Your task to perform on an android device: Show me popular videos on Youtube Image 0: 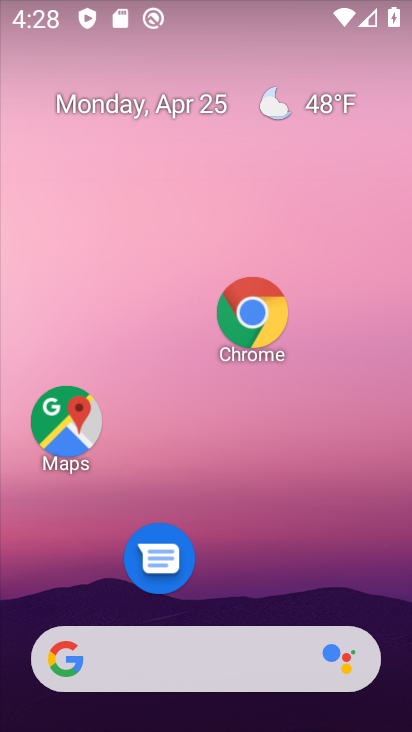
Step 0: drag from (285, 525) to (310, 78)
Your task to perform on an android device: Show me popular videos on Youtube Image 1: 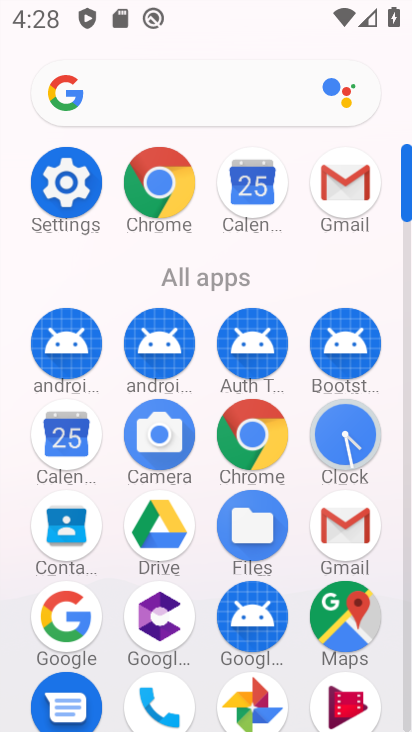
Step 1: drag from (390, 611) to (357, 204)
Your task to perform on an android device: Show me popular videos on Youtube Image 2: 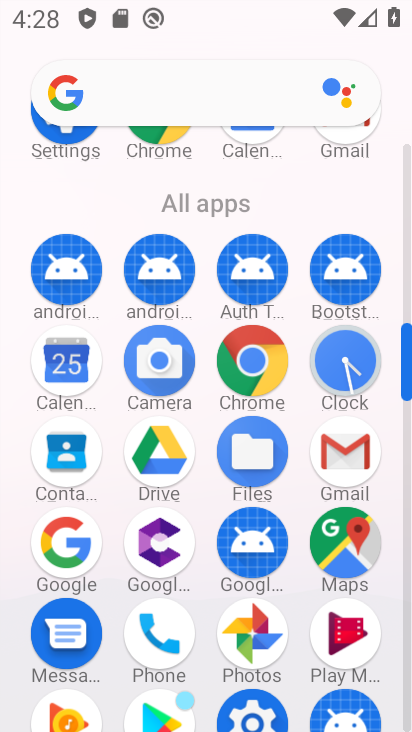
Step 2: drag from (384, 634) to (375, 105)
Your task to perform on an android device: Show me popular videos on Youtube Image 3: 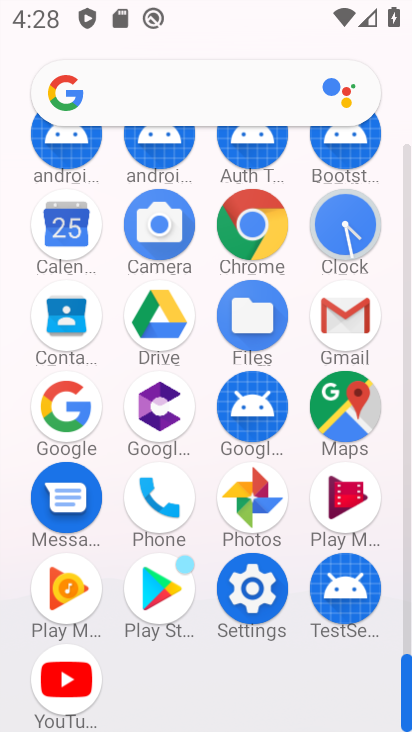
Step 3: click (74, 678)
Your task to perform on an android device: Show me popular videos on Youtube Image 4: 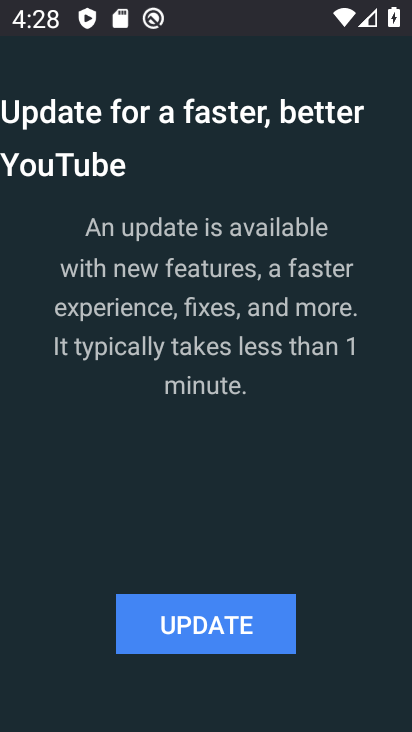
Step 4: click (211, 628)
Your task to perform on an android device: Show me popular videos on Youtube Image 5: 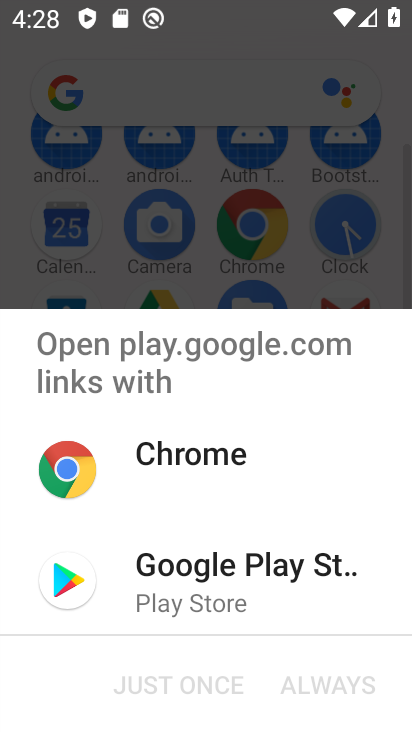
Step 5: click (187, 610)
Your task to perform on an android device: Show me popular videos on Youtube Image 6: 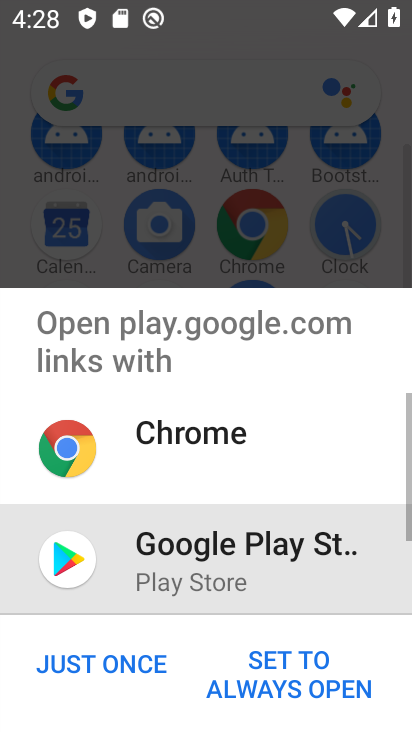
Step 6: click (96, 659)
Your task to perform on an android device: Show me popular videos on Youtube Image 7: 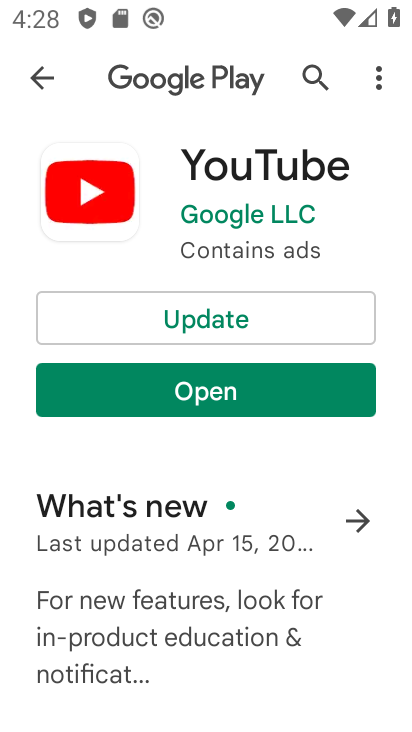
Step 7: click (224, 321)
Your task to perform on an android device: Show me popular videos on Youtube Image 8: 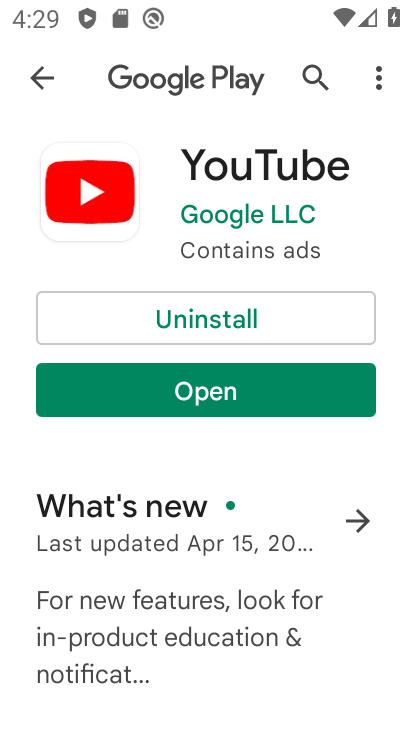
Step 8: click (199, 392)
Your task to perform on an android device: Show me popular videos on Youtube Image 9: 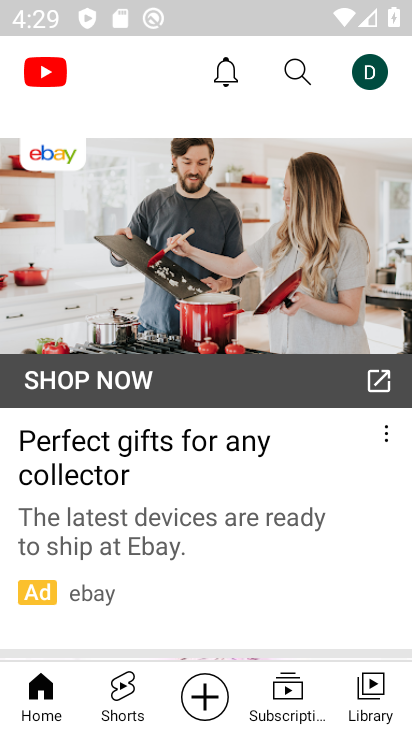
Step 9: click (293, 66)
Your task to perform on an android device: Show me popular videos on Youtube Image 10: 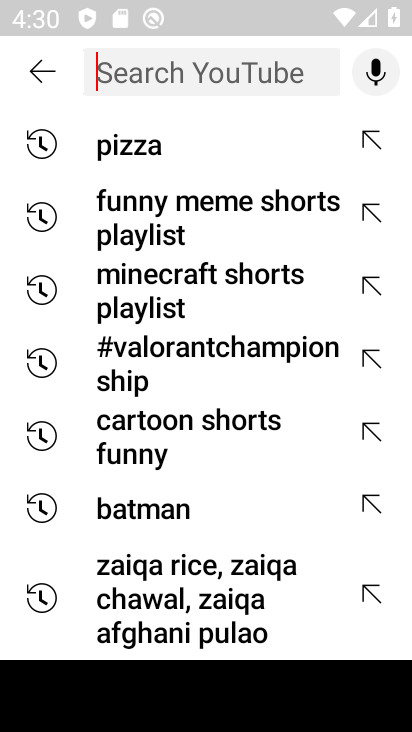
Step 10: type "popular videos"
Your task to perform on an android device: Show me popular videos on Youtube Image 11: 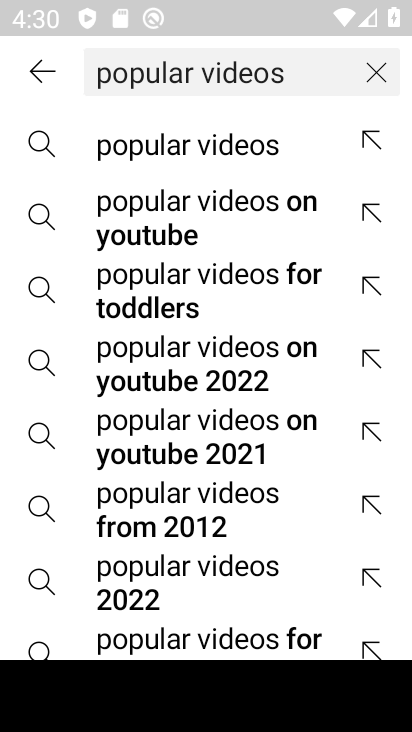
Step 11: click (233, 143)
Your task to perform on an android device: Show me popular videos on Youtube Image 12: 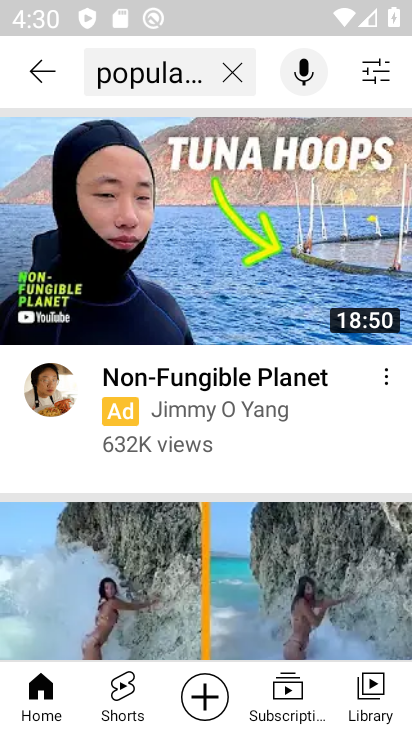
Step 12: task complete